Your task to perform on an android device: turn on improve location accuracy Image 0: 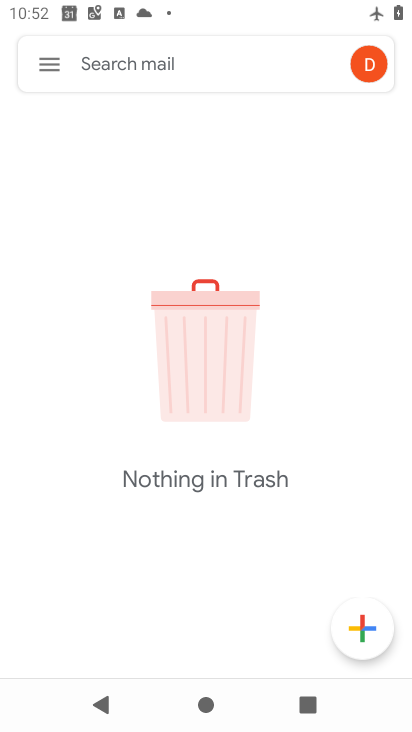
Step 0: press home button
Your task to perform on an android device: turn on improve location accuracy Image 1: 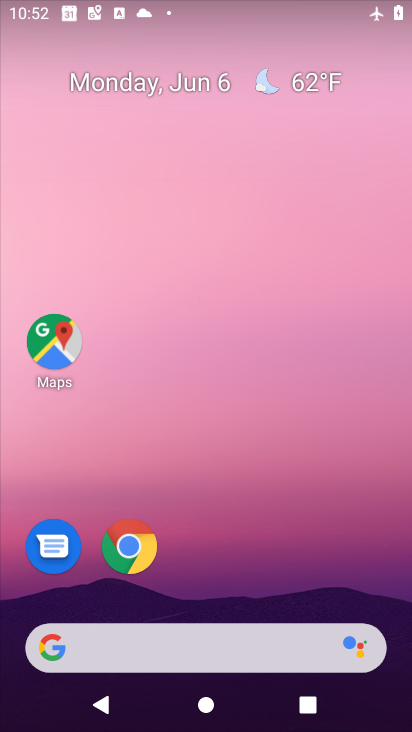
Step 1: drag from (381, 603) to (226, 138)
Your task to perform on an android device: turn on improve location accuracy Image 2: 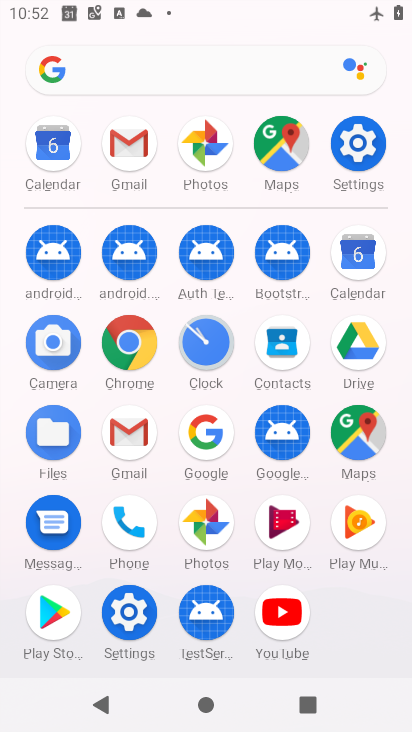
Step 2: click (131, 610)
Your task to perform on an android device: turn on improve location accuracy Image 3: 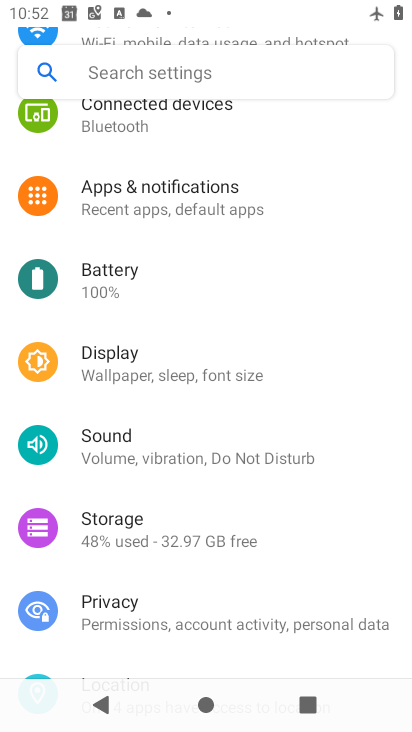
Step 3: drag from (315, 508) to (290, 192)
Your task to perform on an android device: turn on improve location accuracy Image 4: 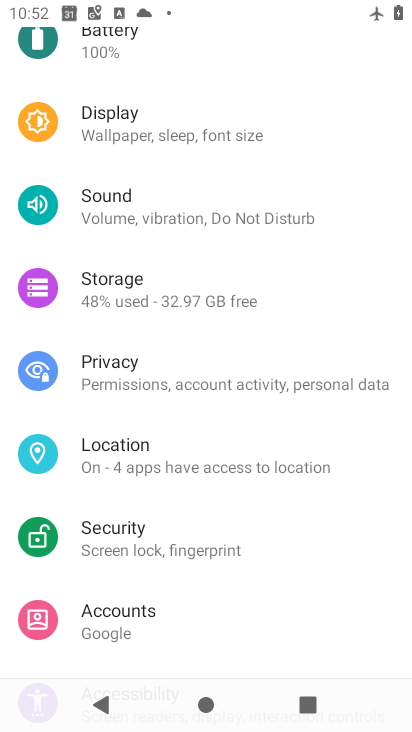
Step 4: click (100, 445)
Your task to perform on an android device: turn on improve location accuracy Image 5: 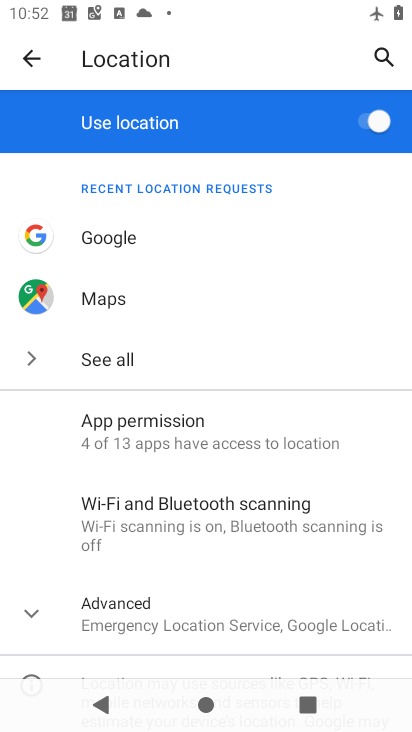
Step 5: click (52, 609)
Your task to perform on an android device: turn on improve location accuracy Image 6: 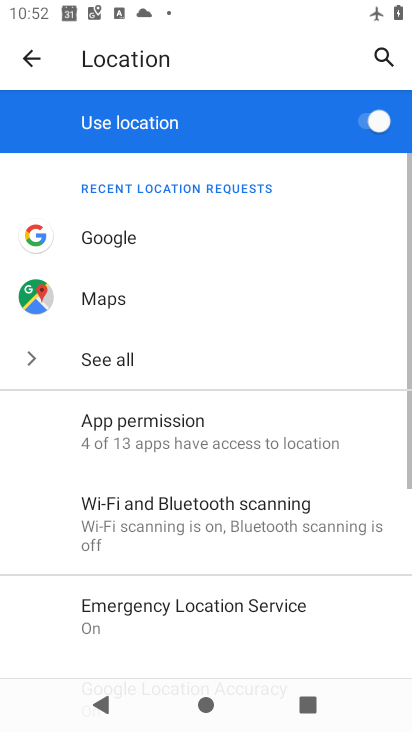
Step 6: drag from (156, 605) to (172, 290)
Your task to perform on an android device: turn on improve location accuracy Image 7: 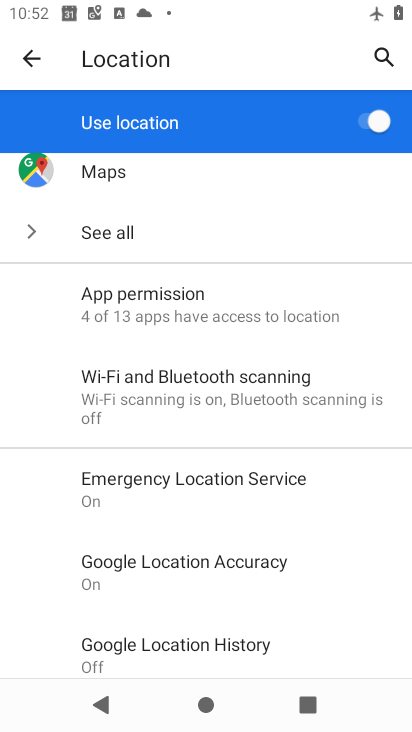
Step 7: click (177, 562)
Your task to perform on an android device: turn on improve location accuracy Image 8: 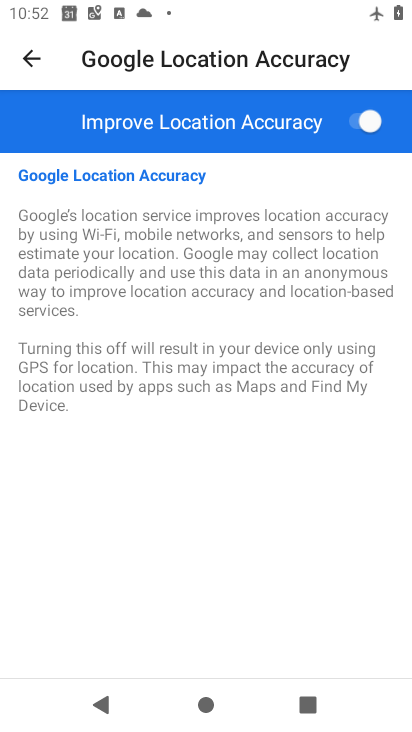
Step 8: task complete